Your task to perform on an android device: Open the phone app and click the voicemail tab. Image 0: 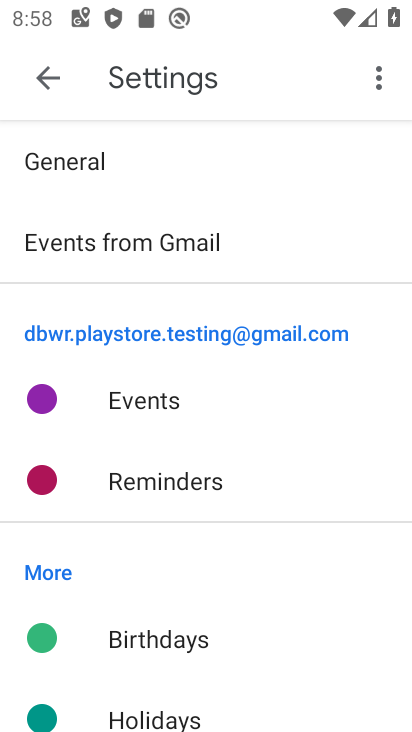
Step 0: press home button
Your task to perform on an android device: Open the phone app and click the voicemail tab. Image 1: 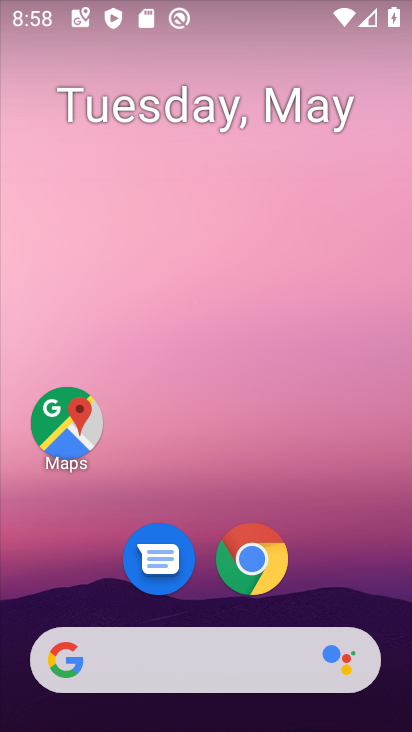
Step 1: drag from (332, 547) to (318, 83)
Your task to perform on an android device: Open the phone app and click the voicemail tab. Image 2: 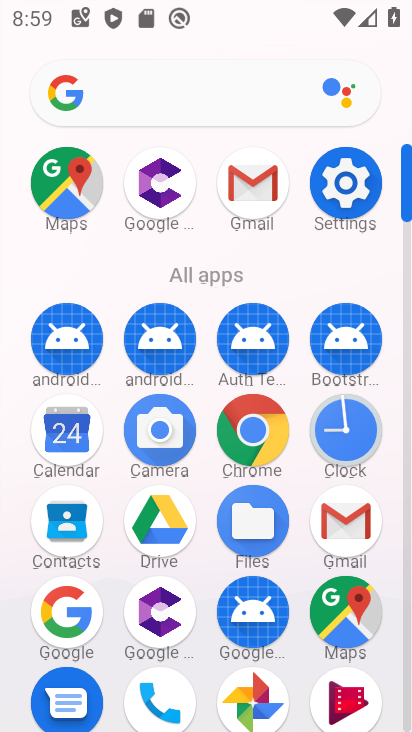
Step 2: drag from (243, 601) to (274, 177)
Your task to perform on an android device: Open the phone app and click the voicemail tab. Image 3: 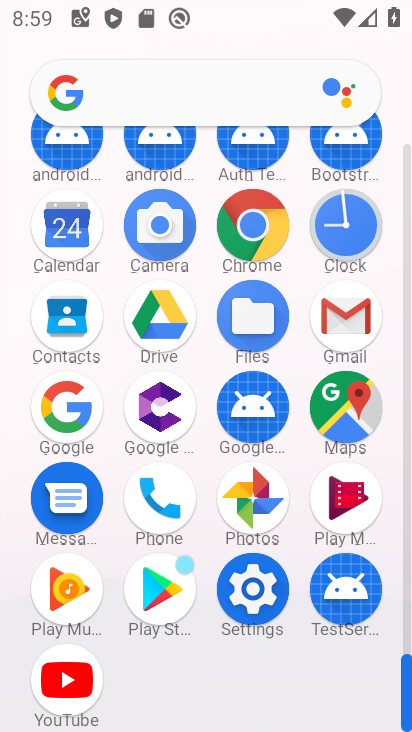
Step 3: click (156, 505)
Your task to perform on an android device: Open the phone app and click the voicemail tab. Image 4: 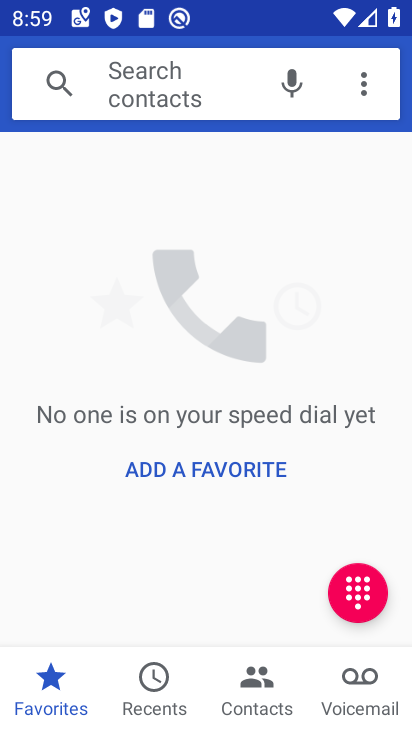
Step 4: click (355, 706)
Your task to perform on an android device: Open the phone app and click the voicemail tab. Image 5: 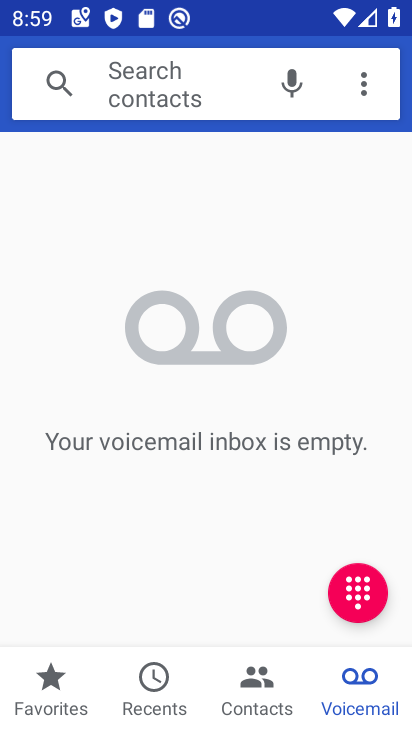
Step 5: task complete